Your task to perform on an android device: snooze an email in the gmail app Image 0: 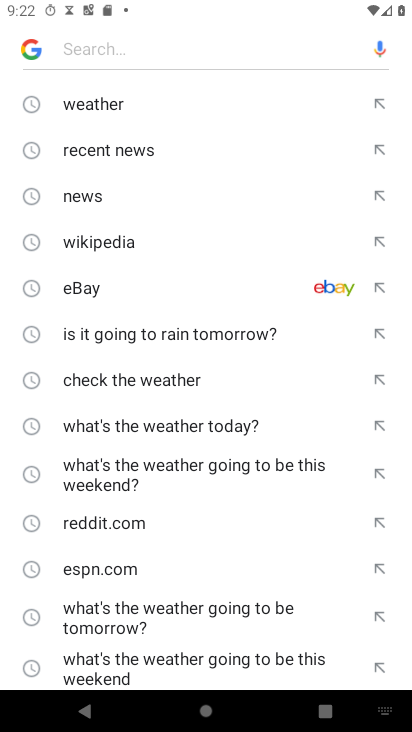
Step 0: press home button
Your task to perform on an android device: snooze an email in the gmail app Image 1: 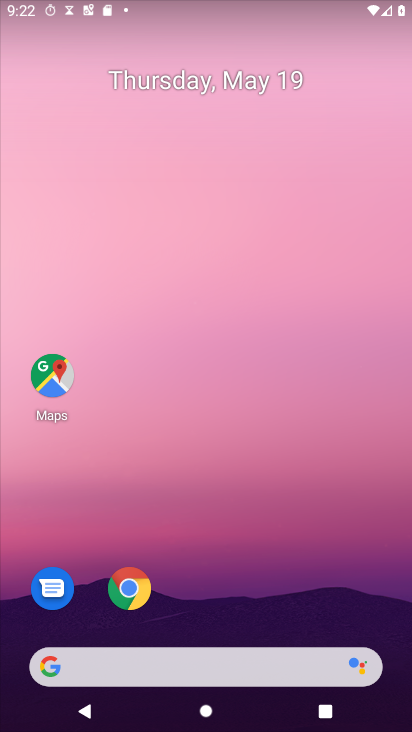
Step 1: drag from (158, 665) to (310, 222)
Your task to perform on an android device: snooze an email in the gmail app Image 2: 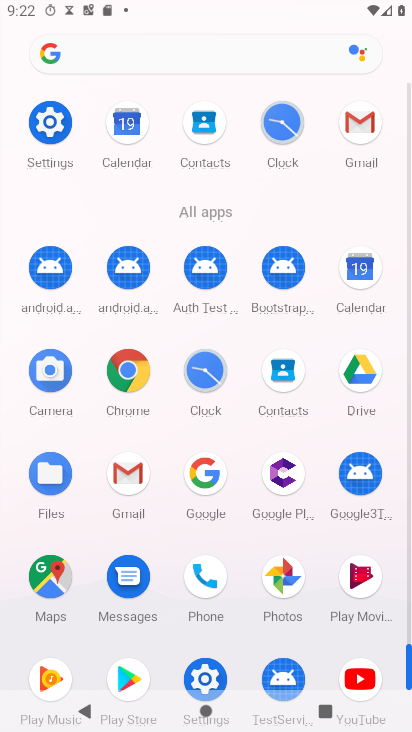
Step 2: click (366, 132)
Your task to perform on an android device: snooze an email in the gmail app Image 3: 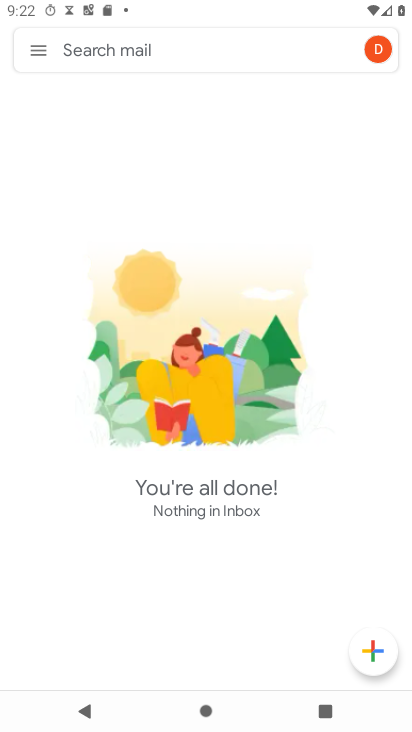
Step 3: task complete